Your task to perform on an android device: change alarm snooze length Image 0: 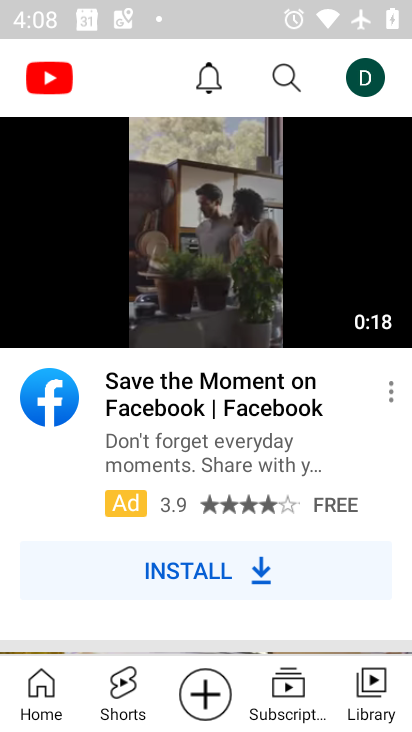
Step 0: press home button
Your task to perform on an android device: change alarm snooze length Image 1: 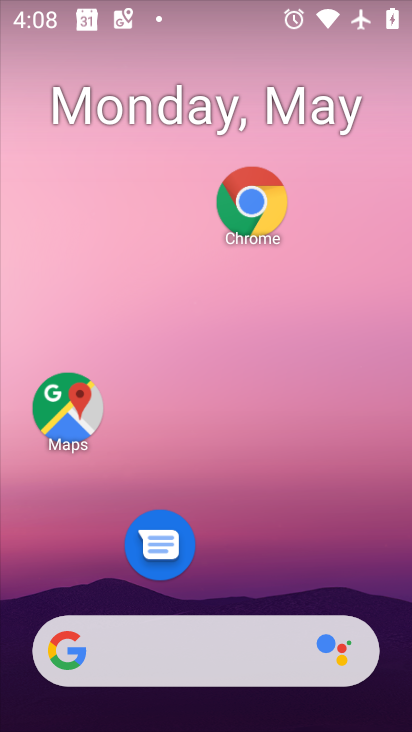
Step 1: drag from (233, 597) to (288, 112)
Your task to perform on an android device: change alarm snooze length Image 2: 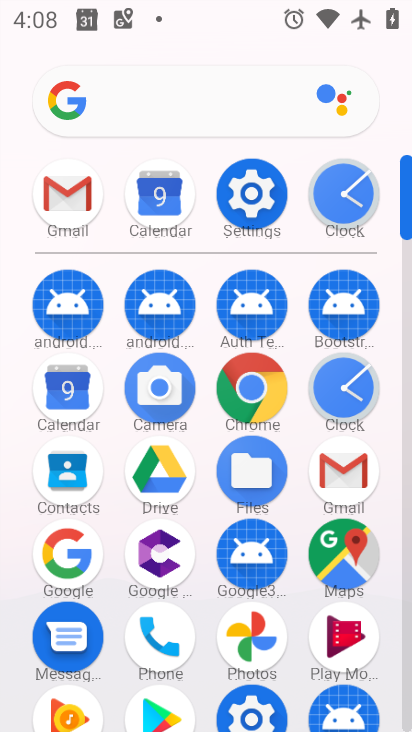
Step 2: click (300, 208)
Your task to perform on an android device: change alarm snooze length Image 3: 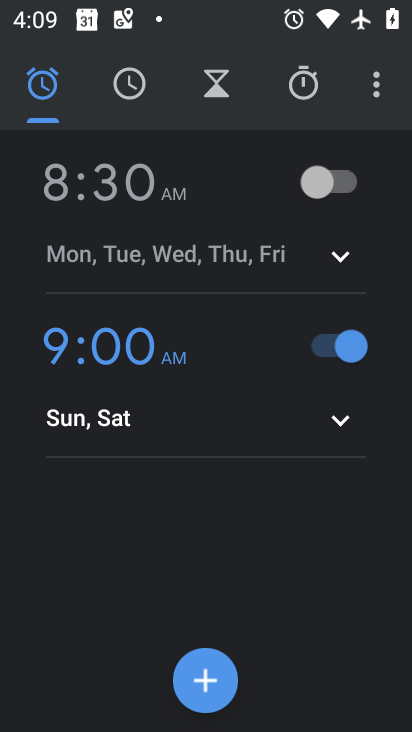
Step 3: click (374, 104)
Your task to perform on an android device: change alarm snooze length Image 4: 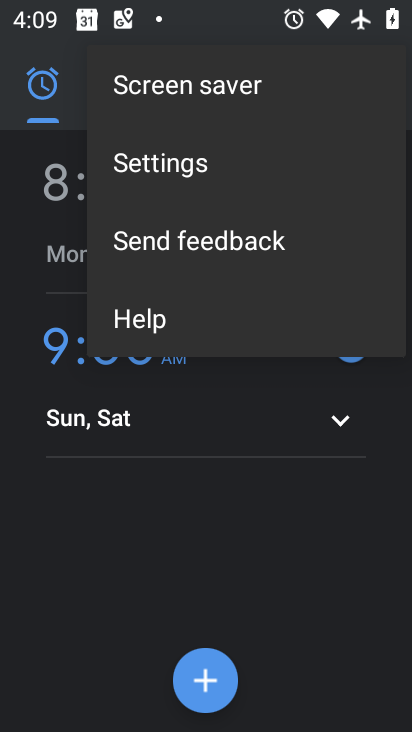
Step 4: click (185, 177)
Your task to perform on an android device: change alarm snooze length Image 5: 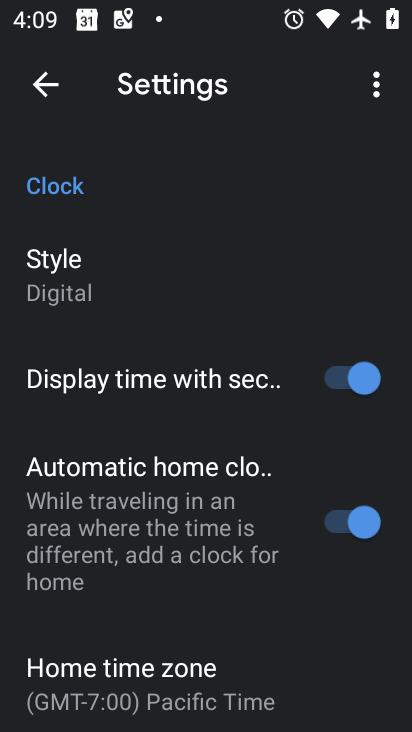
Step 5: drag from (170, 588) to (272, 187)
Your task to perform on an android device: change alarm snooze length Image 6: 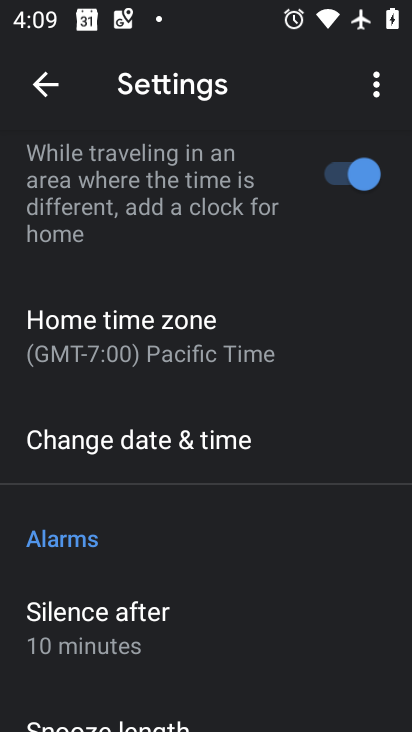
Step 6: drag from (246, 520) to (313, 278)
Your task to perform on an android device: change alarm snooze length Image 7: 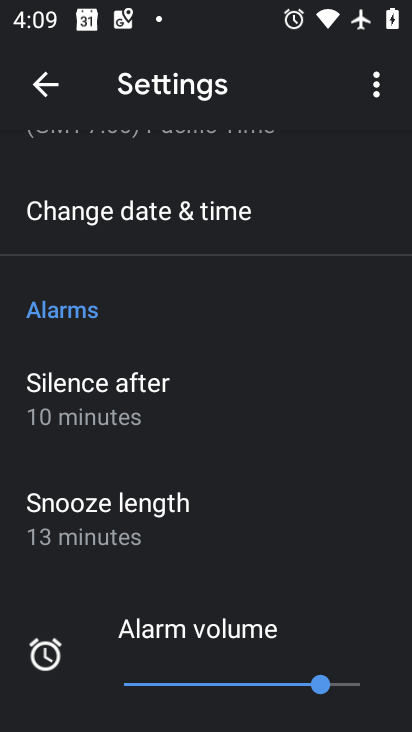
Step 7: drag from (295, 554) to (328, 302)
Your task to perform on an android device: change alarm snooze length Image 8: 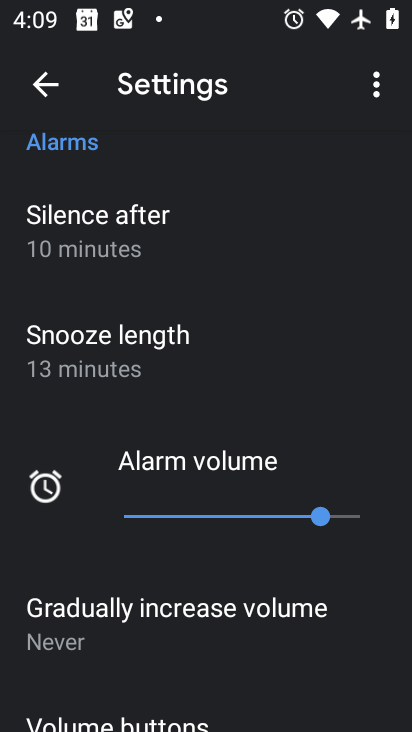
Step 8: drag from (250, 534) to (262, 289)
Your task to perform on an android device: change alarm snooze length Image 9: 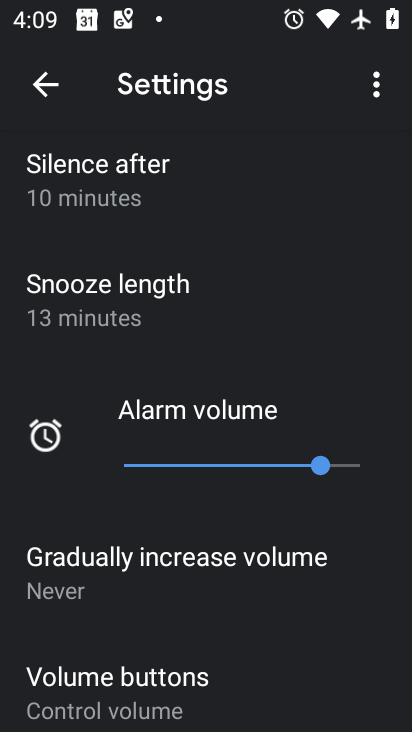
Step 9: drag from (207, 662) to (258, 507)
Your task to perform on an android device: change alarm snooze length Image 10: 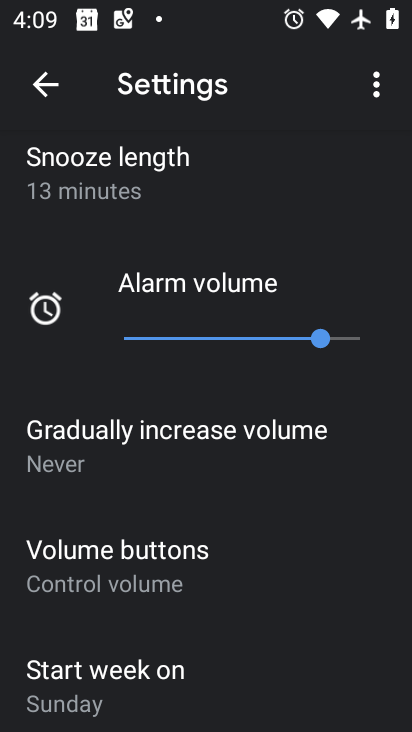
Step 10: click (133, 196)
Your task to perform on an android device: change alarm snooze length Image 11: 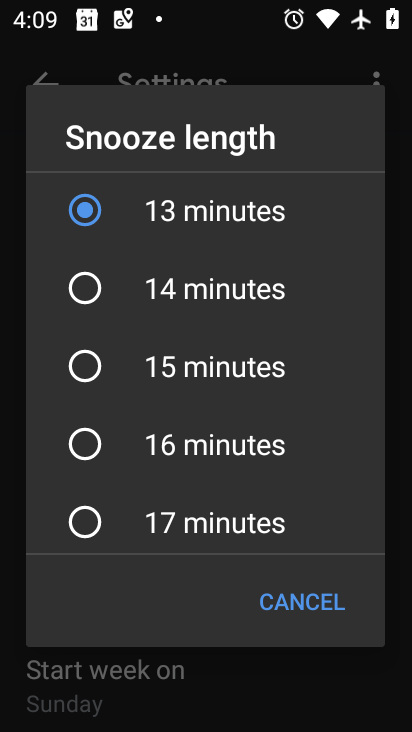
Step 11: click (135, 373)
Your task to perform on an android device: change alarm snooze length Image 12: 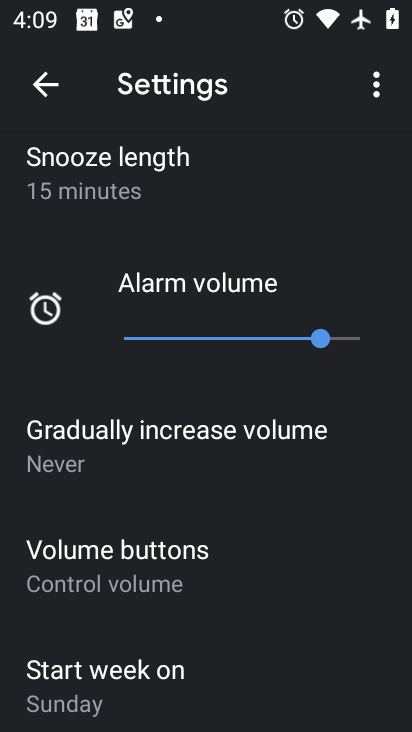
Step 12: task complete